Your task to perform on an android device: turn on sleep mode Image 0: 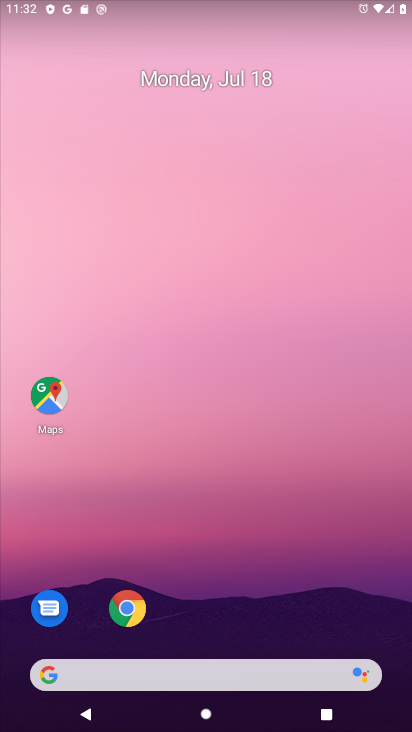
Step 0: drag from (278, 543) to (295, 253)
Your task to perform on an android device: turn on sleep mode Image 1: 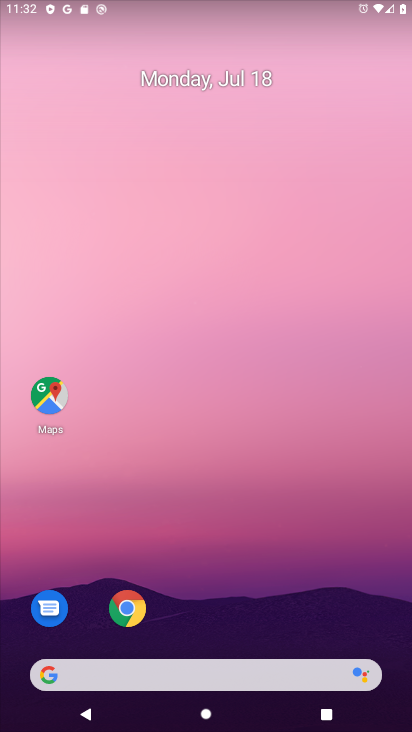
Step 1: drag from (285, 614) to (411, 366)
Your task to perform on an android device: turn on sleep mode Image 2: 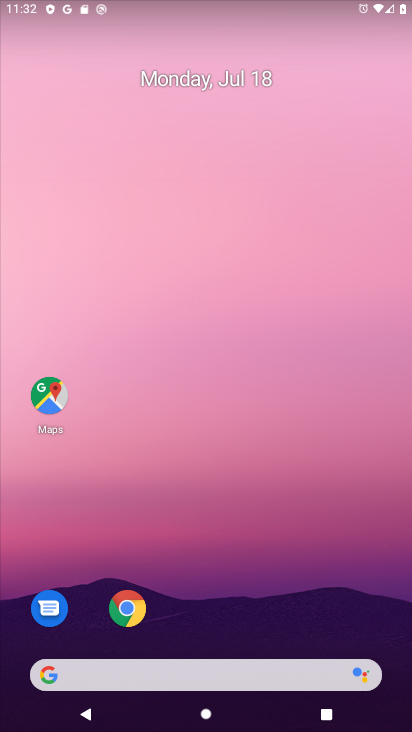
Step 2: drag from (283, 578) to (275, 33)
Your task to perform on an android device: turn on sleep mode Image 3: 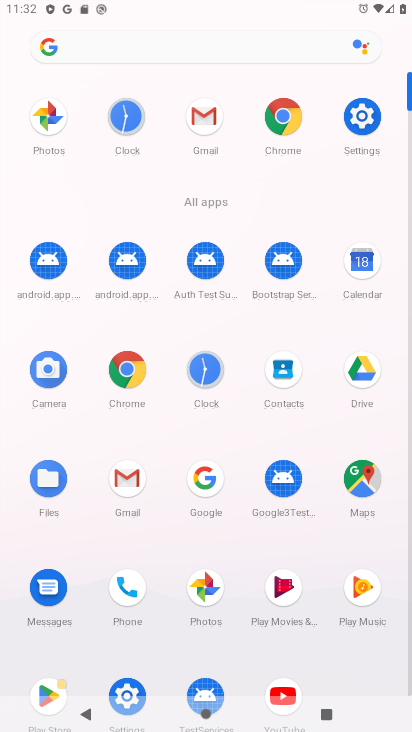
Step 3: click (361, 113)
Your task to perform on an android device: turn on sleep mode Image 4: 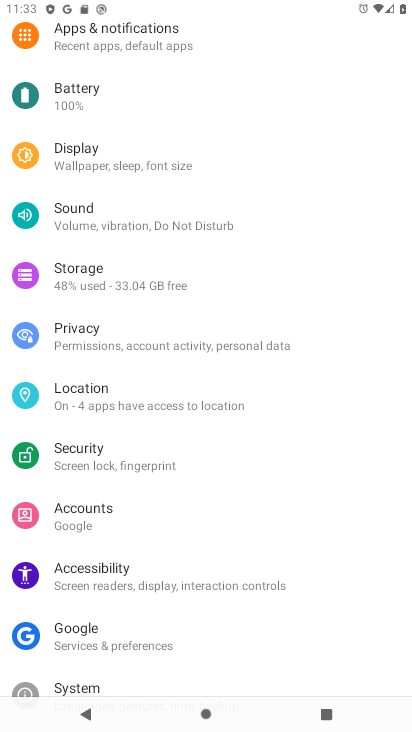
Step 4: click (84, 146)
Your task to perform on an android device: turn on sleep mode Image 5: 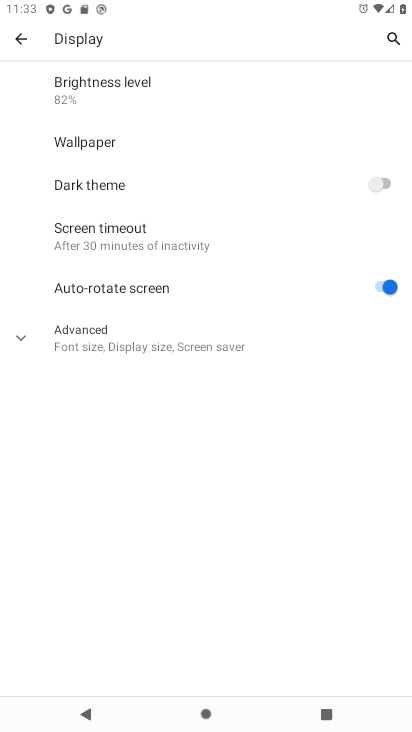
Step 5: click (203, 334)
Your task to perform on an android device: turn on sleep mode Image 6: 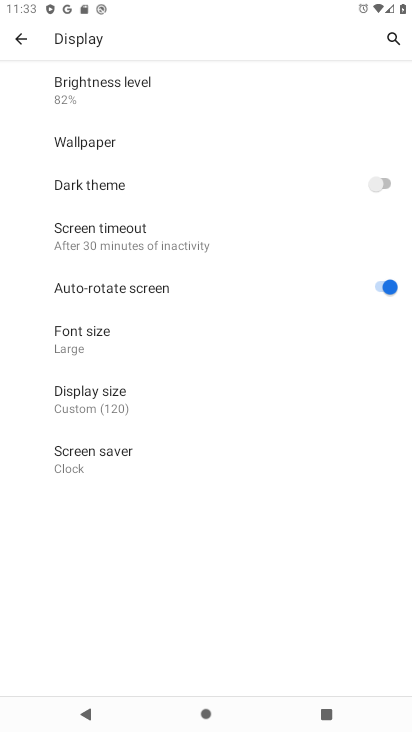
Step 6: task complete